Your task to perform on an android device: turn on the 24-hour format for clock Image 0: 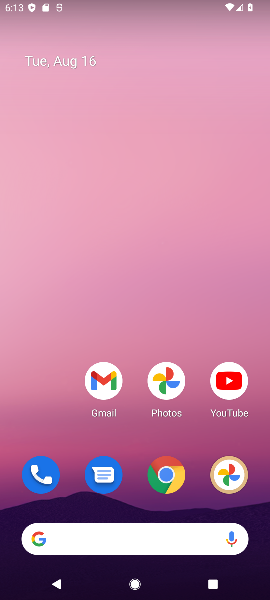
Step 0: drag from (205, 442) to (9, 11)
Your task to perform on an android device: turn on the 24-hour format for clock Image 1: 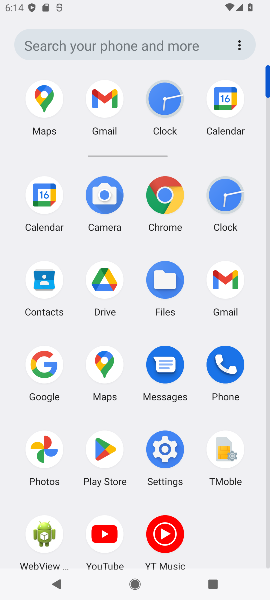
Step 1: click (216, 200)
Your task to perform on an android device: turn on the 24-hour format for clock Image 2: 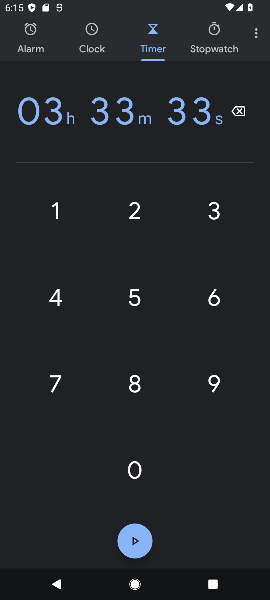
Step 2: click (255, 37)
Your task to perform on an android device: turn on the 24-hour format for clock Image 3: 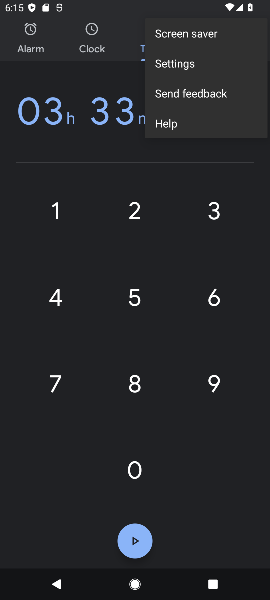
Step 3: click (192, 56)
Your task to perform on an android device: turn on the 24-hour format for clock Image 4: 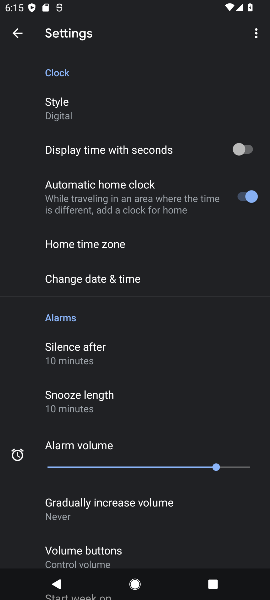
Step 4: click (73, 289)
Your task to perform on an android device: turn on the 24-hour format for clock Image 5: 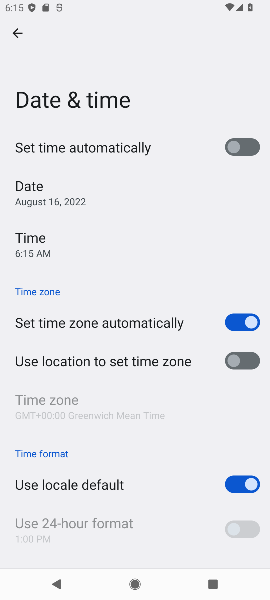
Step 5: task complete